Your task to perform on an android device: Open the stopwatch Image 0: 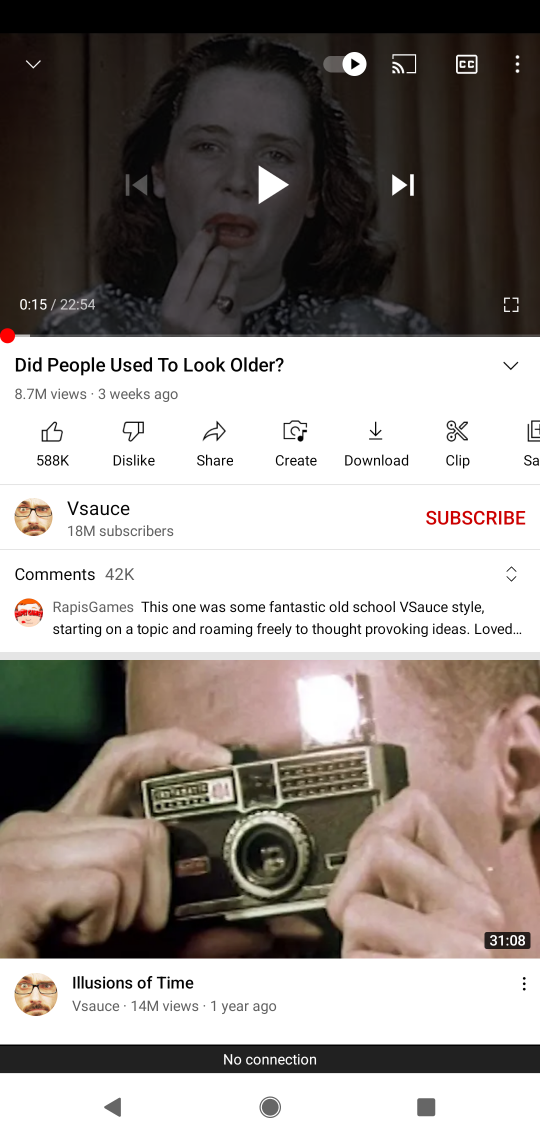
Step 0: press home button
Your task to perform on an android device: Open the stopwatch Image 1: 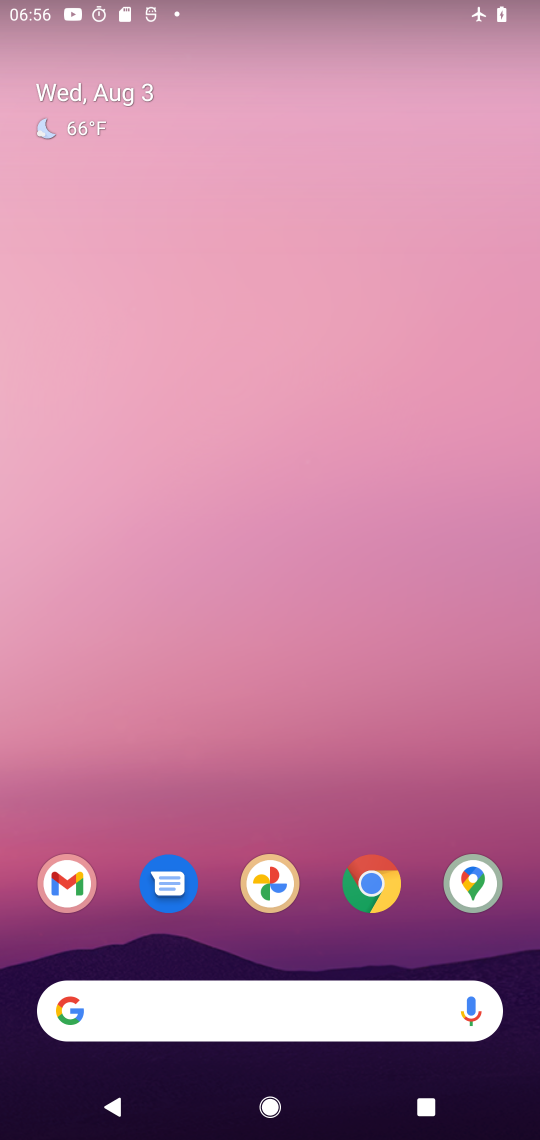
Step 1: drag from (288, 980) to (203, 204)
Your task to perform on an android device: Open the stopwatch Image 2: 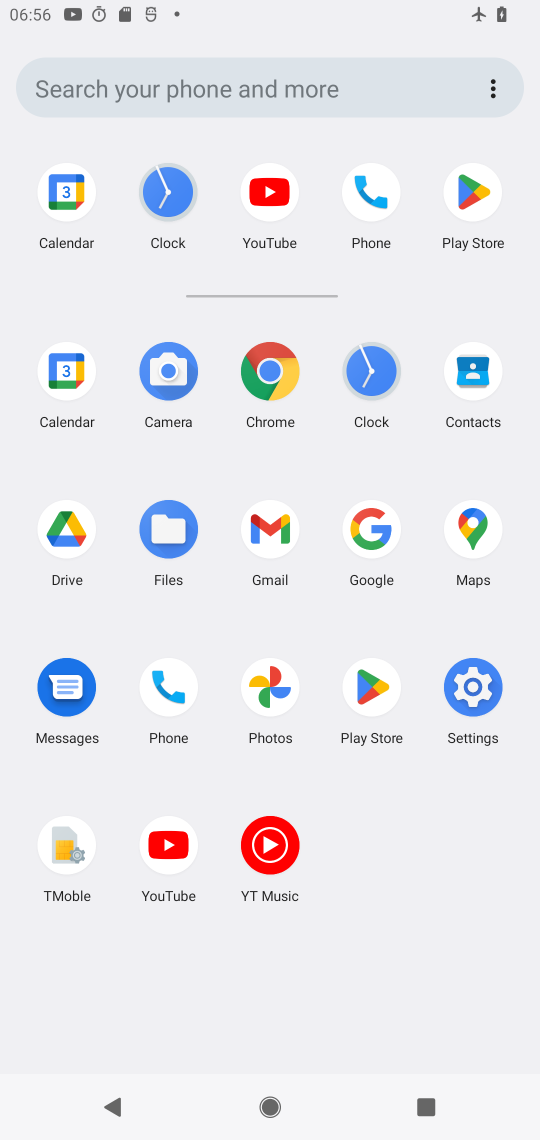
Step 2: click (470, 693)
Your task to perform on an android device: Open the stopwatch Image 3: 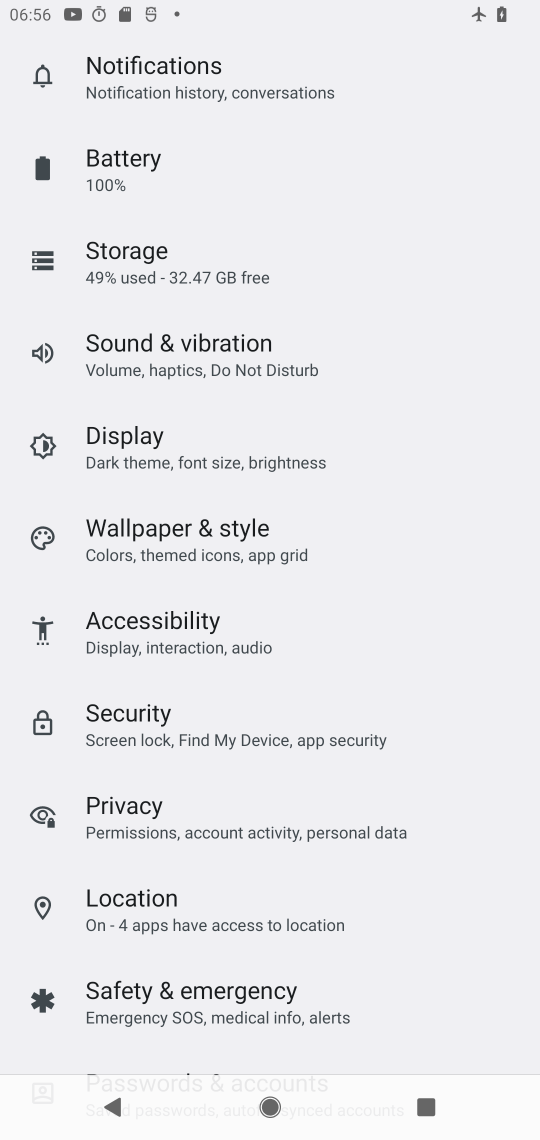
Step 3: press back button
Your task to perform on an android device: Open the stopwatch Image 4: 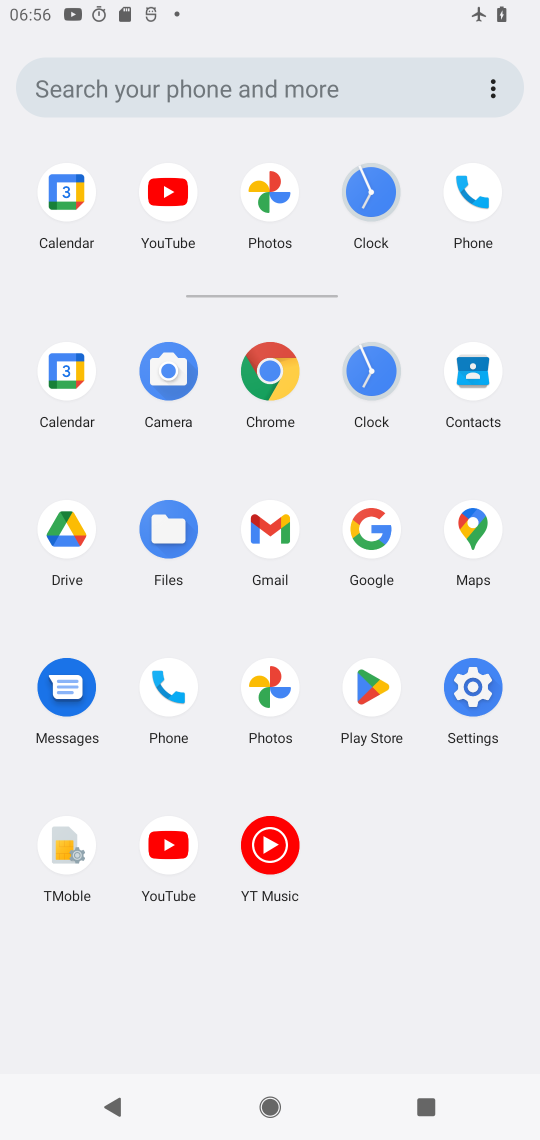
Step 4: click (364, 369)
Your task to perform on an android device: Open the stopwatch Image 5: 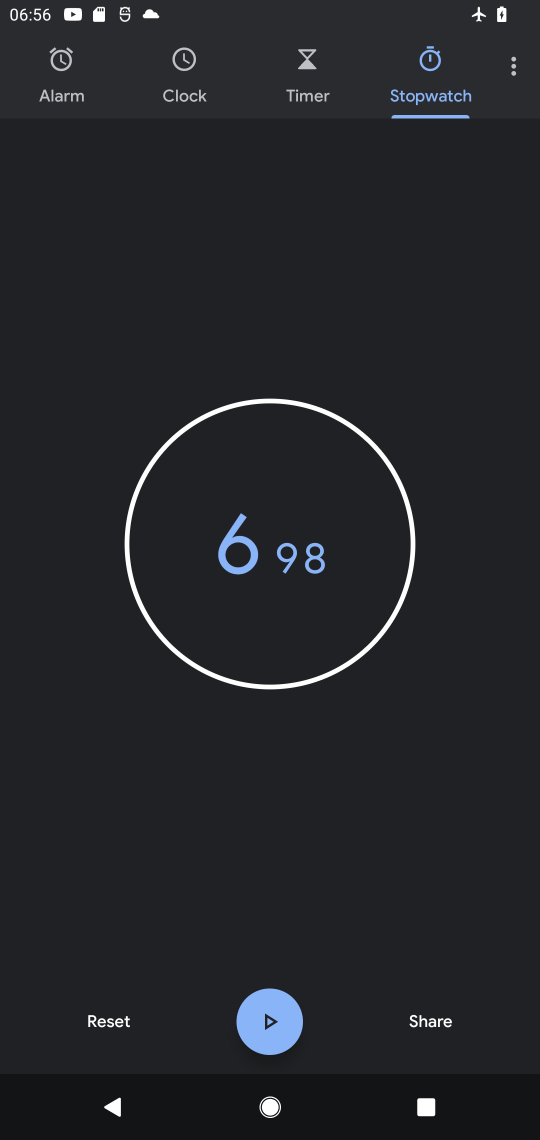
Step 5: task complete